Your task to perform on an android device: turn off airplane mode Image 0: 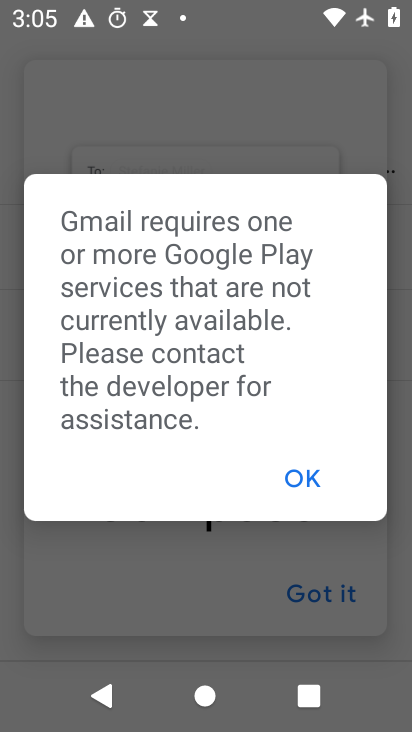
Step 0: press home button
Your task to perform on an android device: turn off airplane mode Image 1: 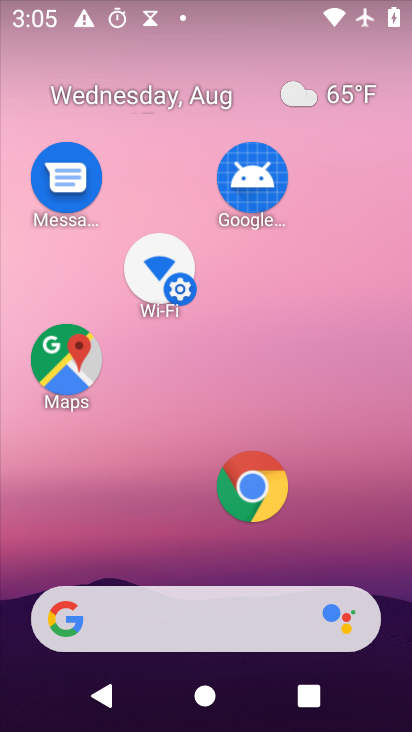
Step 1: drag from (248, 310) to (323, 584)
Your task to perform on an android device: turn off airplane mode Image 2: 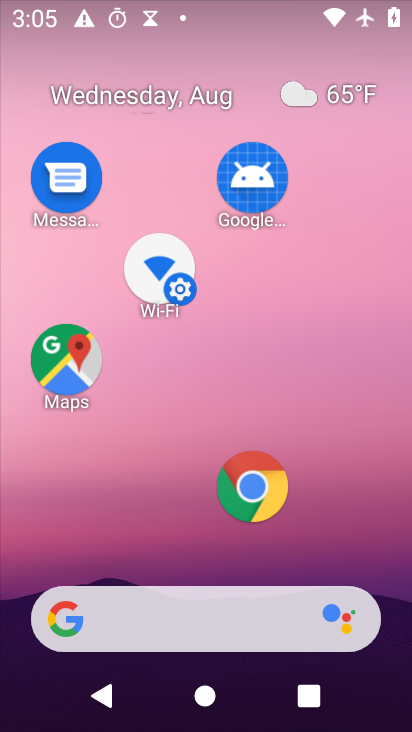
Step 2: drag from (206, 11) to (315, 574)
Your task to perform on an android device: turn off airplane mode Image 3: 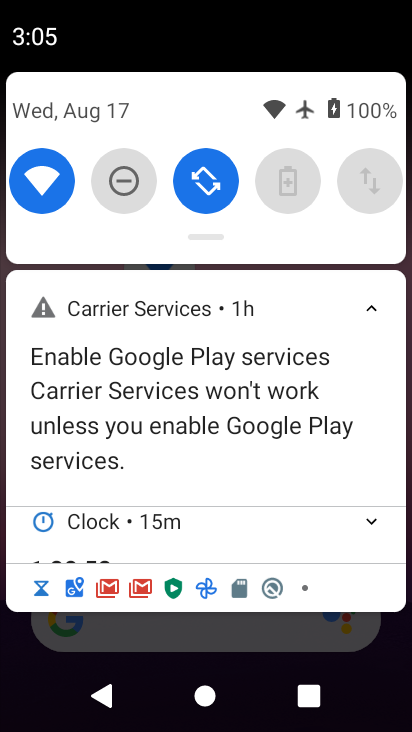
Step 3: drag from (203, 355) to (255, 540)
Your task to perform on an android device: turn off airplane mode Image 4: 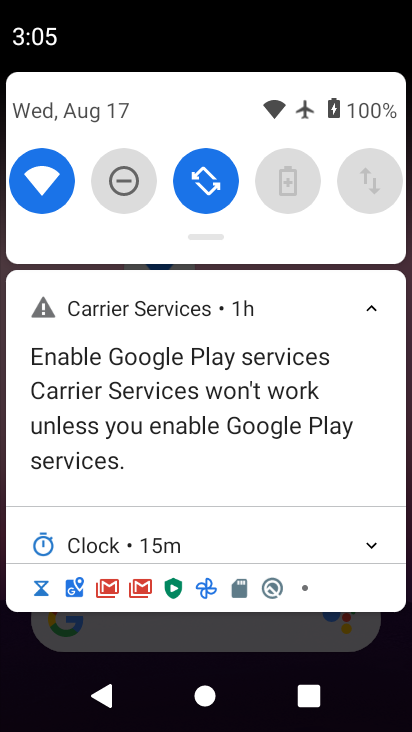
Step 4: drag from (195, 288) to (191, 679)
Your task to perform on an android device: turn off airplane mode Image 5: 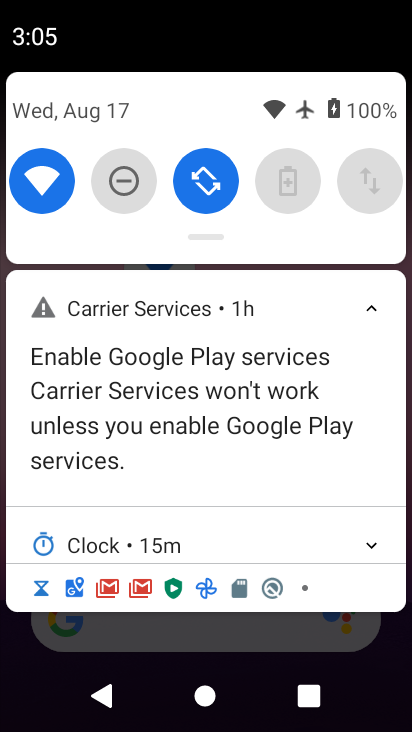
Step 5: drag from (215, 474) to (198, 709)
Your task to perform on an android device: turn off airplane mode Image 6: 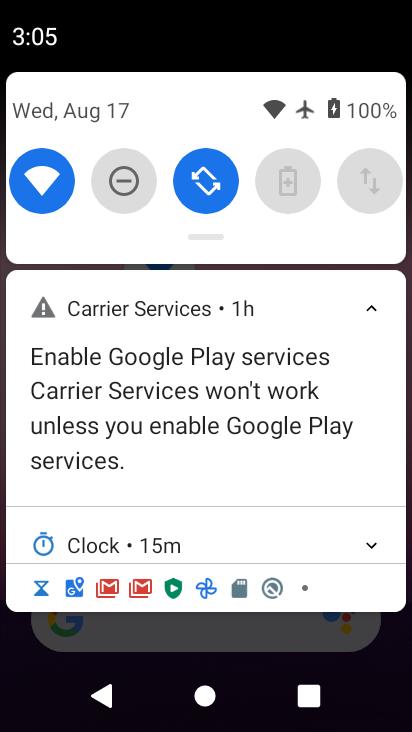
Step 6: drag from (208, 279) to (2, 267)
Your task to perform on an android device: turn off airplane mode Image 7: 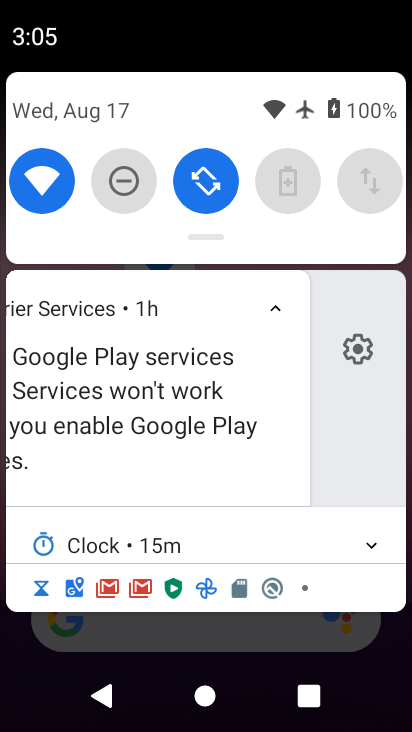
Step 7: click (269, 728)
Your task to perform on an android device: turn off airplane mode Image 8: 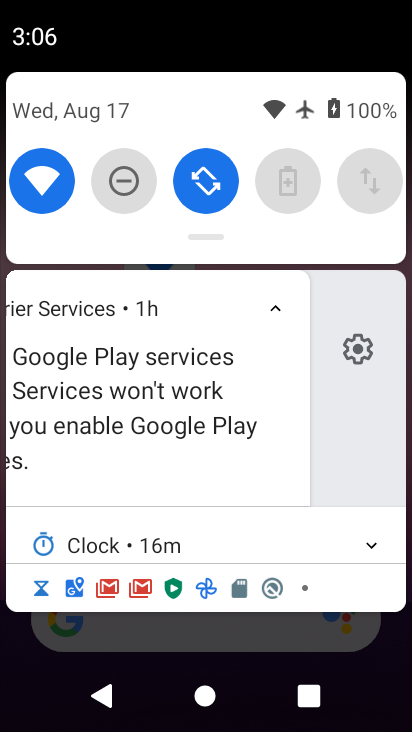
Step 8: click (370, 348)
Your task to perform on an android device: turn off airplane mode Image 9: 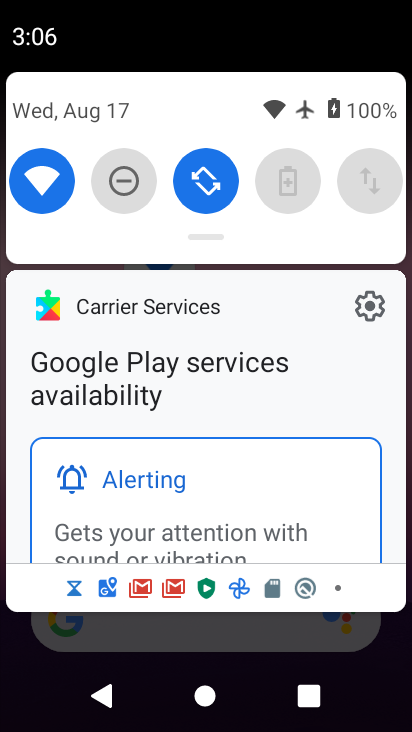
Step 9: press back button
Your task to perform on an android device: turn off airplane mode Image 10: 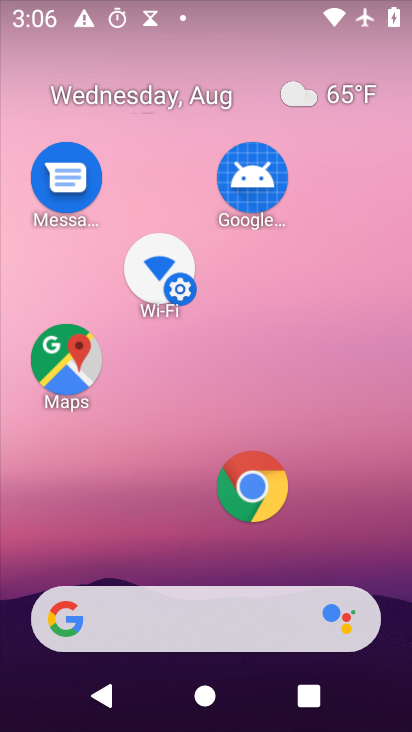
Step 10: drag from (295, 559) to (307, 4)
Your task to perform on an android device: turn off airplane mode Image 11: 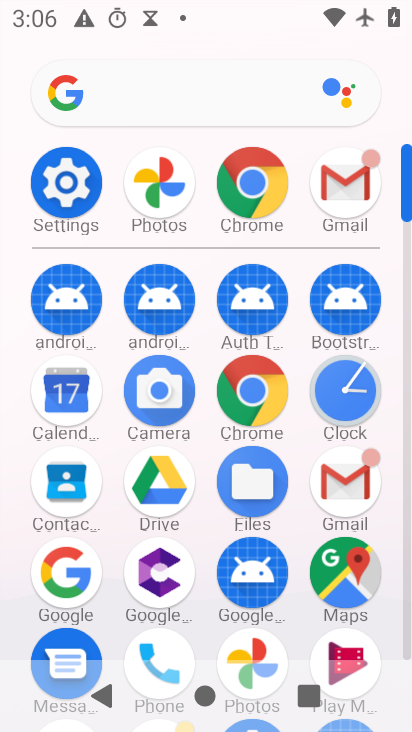
Step 11: click (67, 196)
Your task to perform on an android device: turn off airplane mode Image 12: 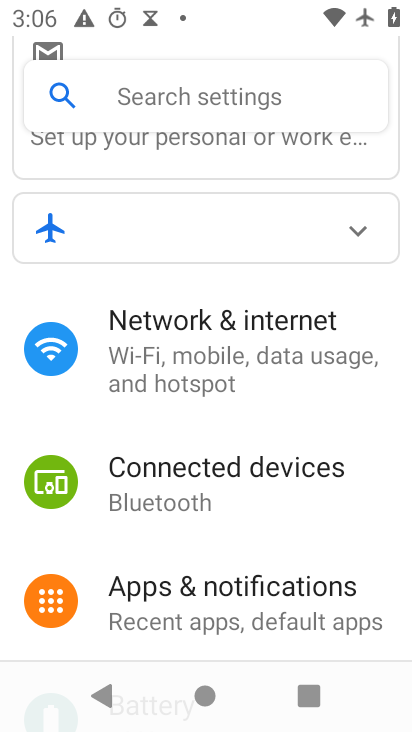
Step 12: click (220, 345)
Your task to perform on an android device: turn off airplane mode Image 13: 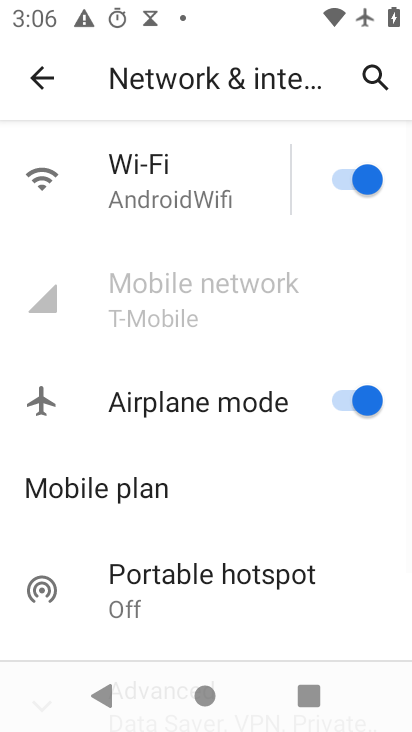
Step 13: click (365, 396)
Your task to perform on an android device: turn off airplane mode Image 14: 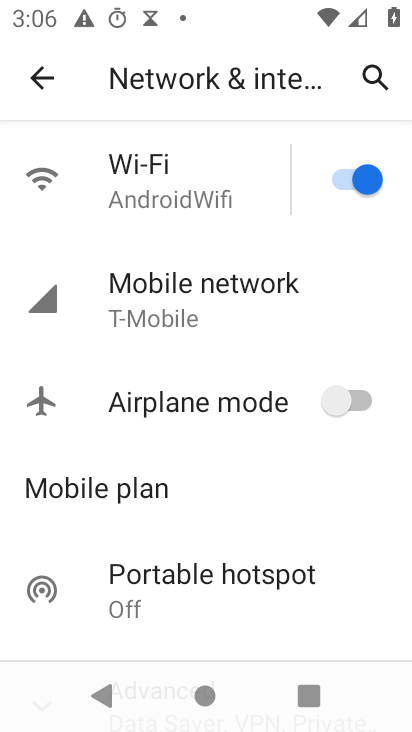
Step 14: task complete